Your task to perform on an android device: toggle pop-ups in chrome Image 0: 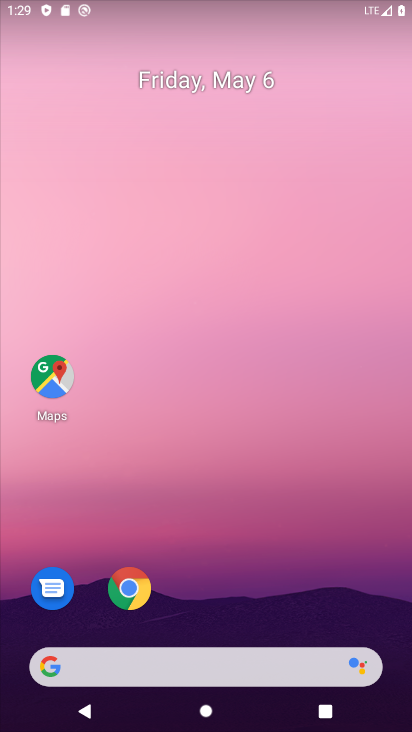
Step 0: drag from (374, 602) to (337, 191)
Your task to perform on an android device: toggle pop-ups in chrome Image 1: 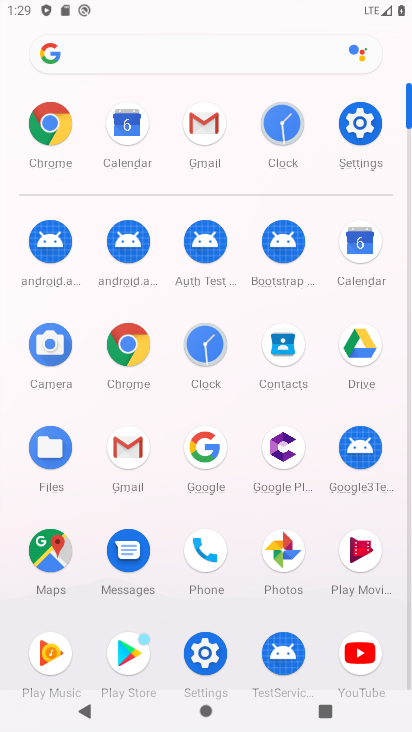
Step 1: click (128, 338)
Your task to perform on an android device: toggle pop-ups in chrome Image 2: 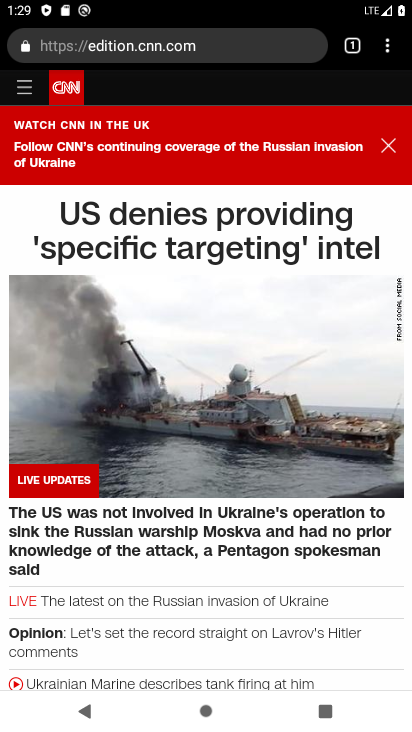
Step 2: drag from (389, 54) to (259, 498)
Your task to perform on an android device: toggle pop-ups in chrome Image 3: 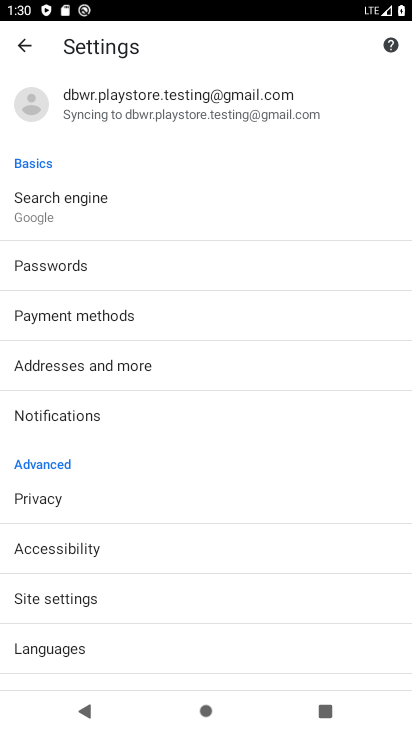
Step 3: click (100, 595)
Your task to perform on an android device: toggle pop-ups in chrome Image 4: 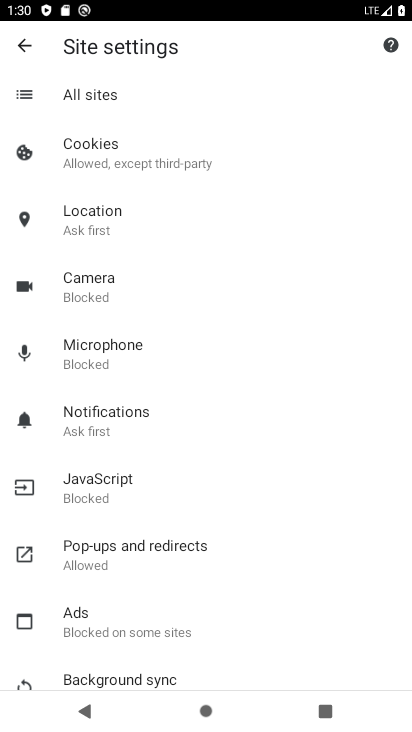
Step 4: drag from (200, 469) to (247, 179)
Your task to perform on an android device: toggle pop-ups in chrome Image 5: 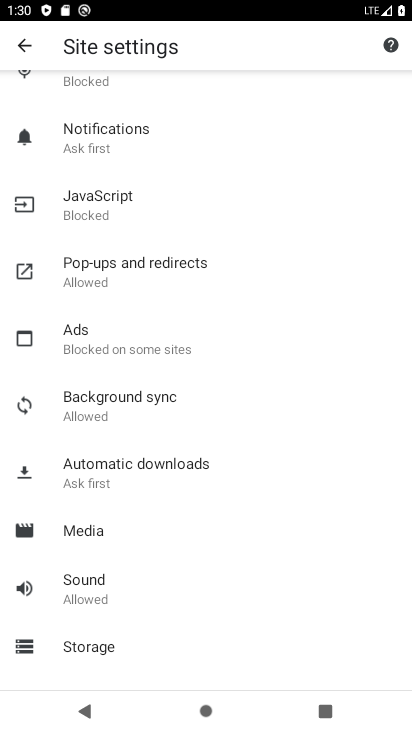
Step 5: click (149, 268)
Your task to perform on an android device: toggle pop-ups in chrome Image 6: 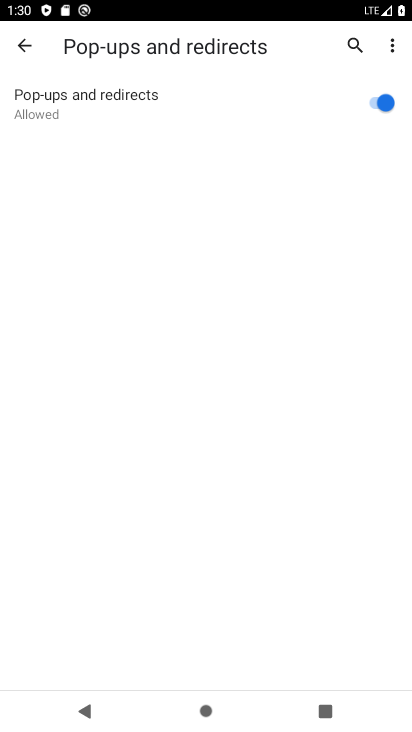
Step 6: click (376, 105)
Your task to perform on an android device: toggle pop-ups in chrome Image 7: 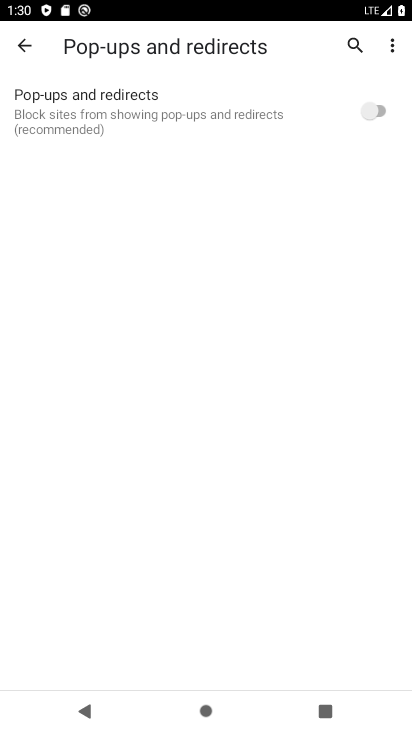
Step 7: task complete